Your task to perform on an android device: change the upload size in google photos Image 0: 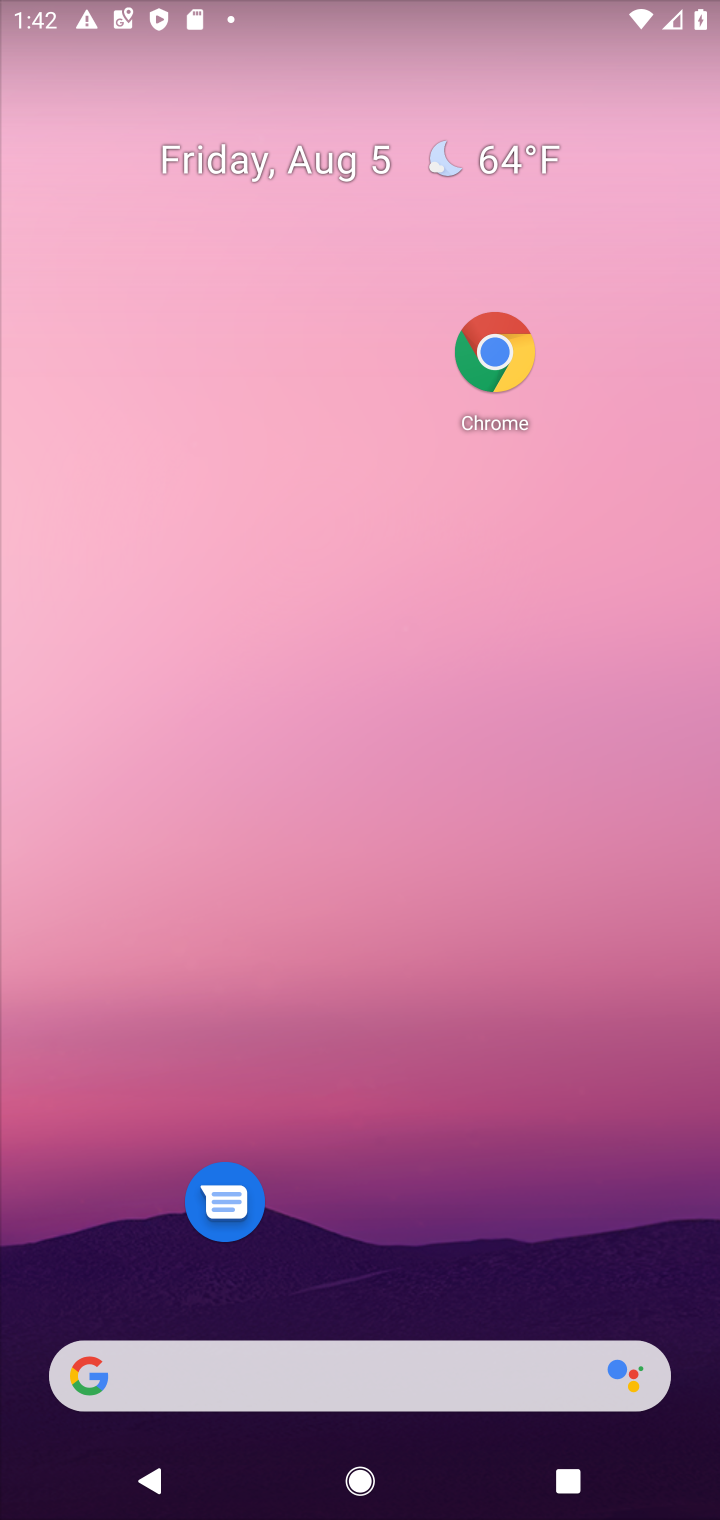
Step 0: drag from (462, 1136) to (404, 54)
Your task to perform on an android device: change the upload size in google photos Image 1: 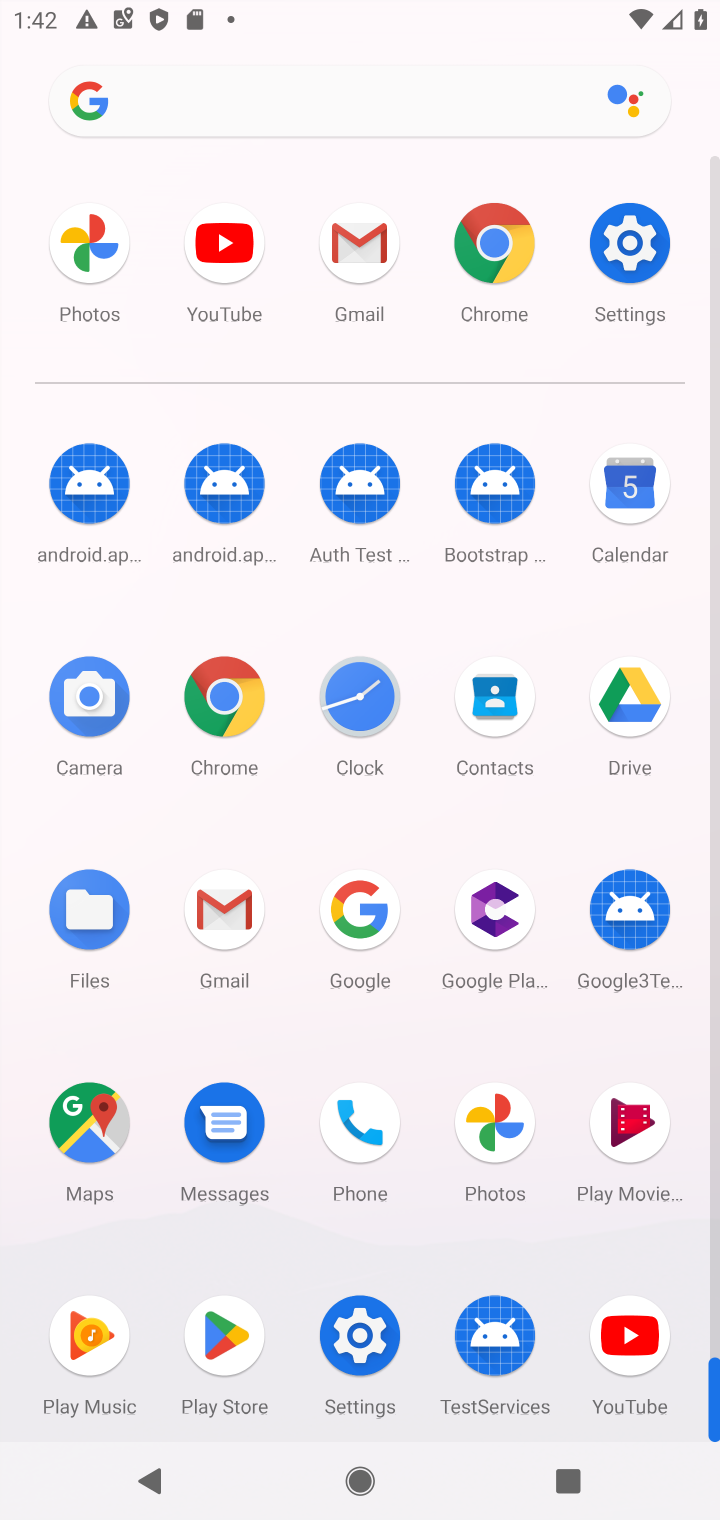
Step 1: click (493, 1121)
Your task to perform on an android device: change the upload size in google photos Image 2: 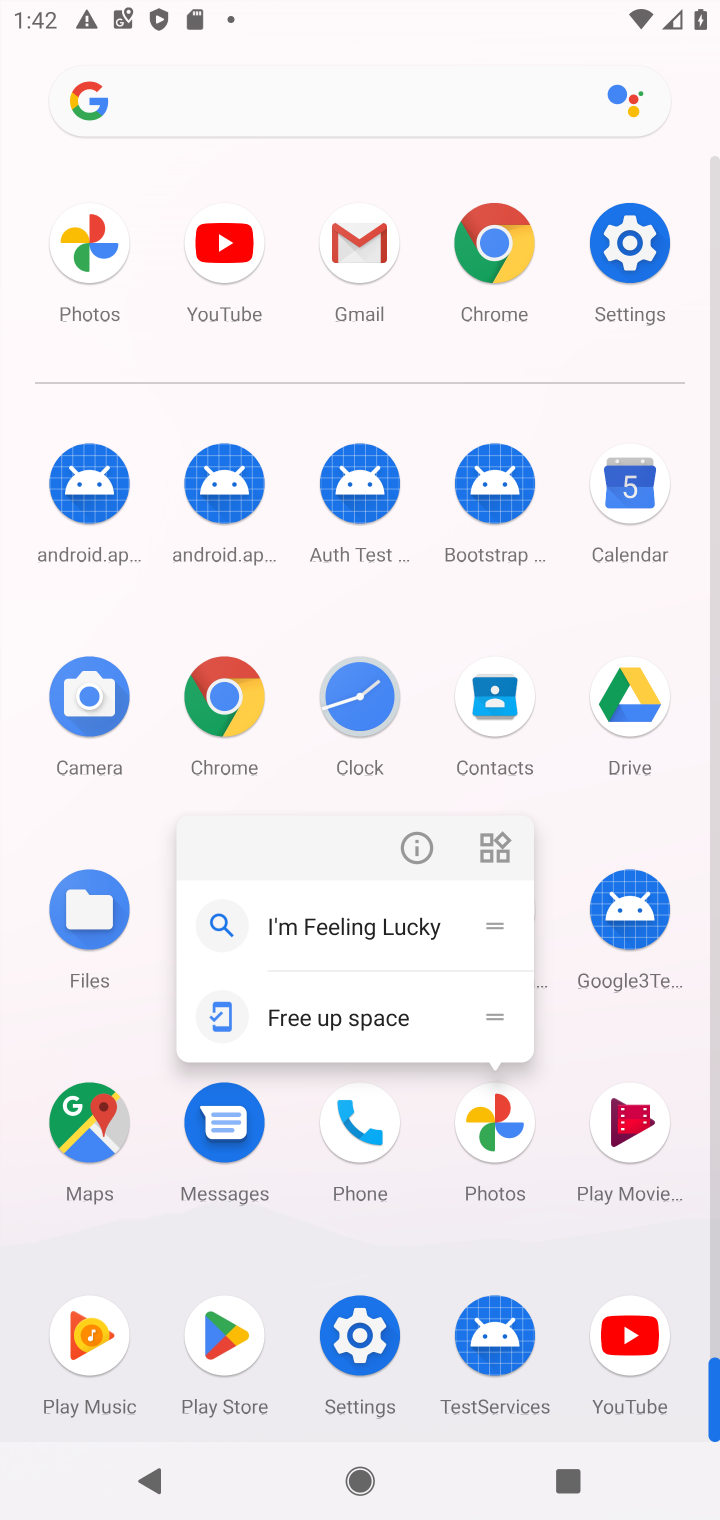
Step 2: click (493, 1122)
Your task to perform on an android device: change the upload size in google photos Image 3: 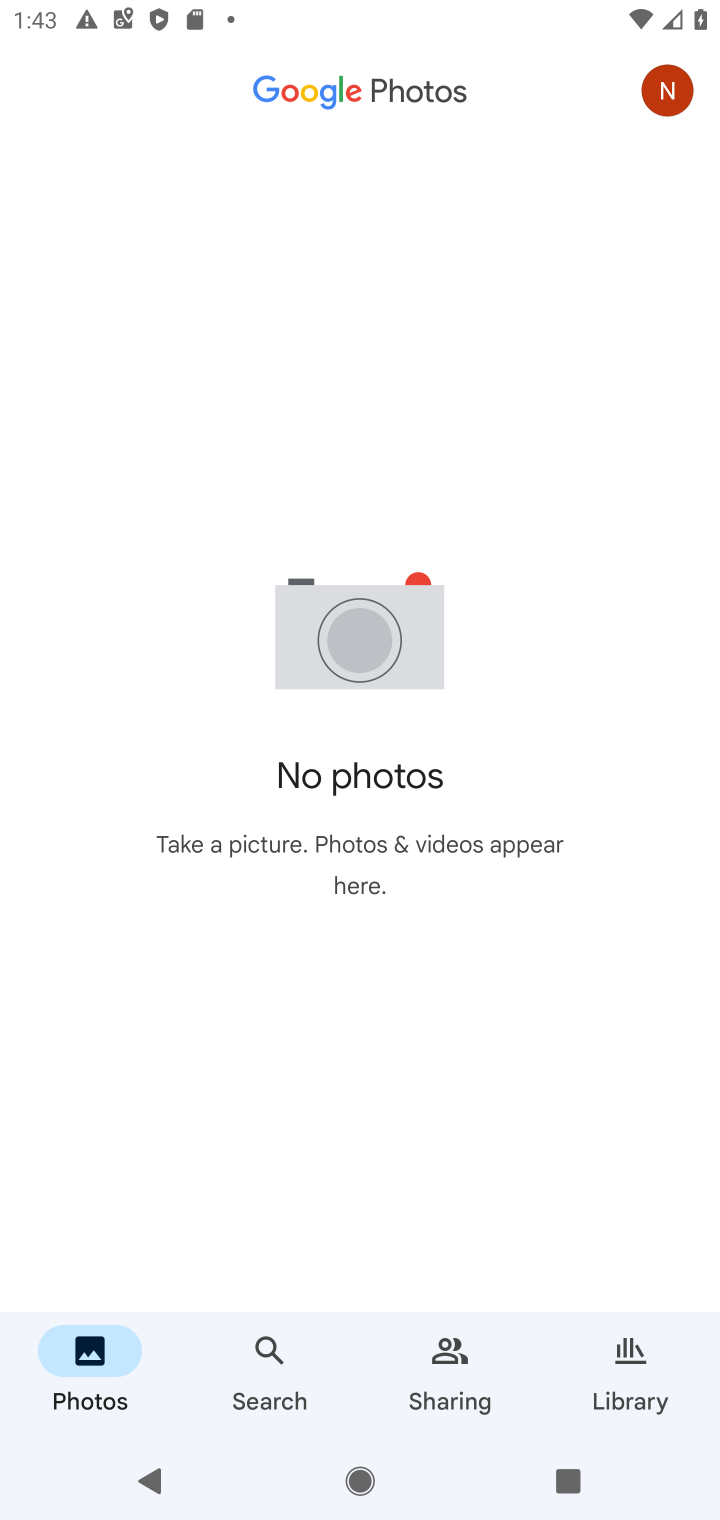
Step 3: click (675, 66)
Your task to perform on an android device: change the upload size in google photos Image 4: 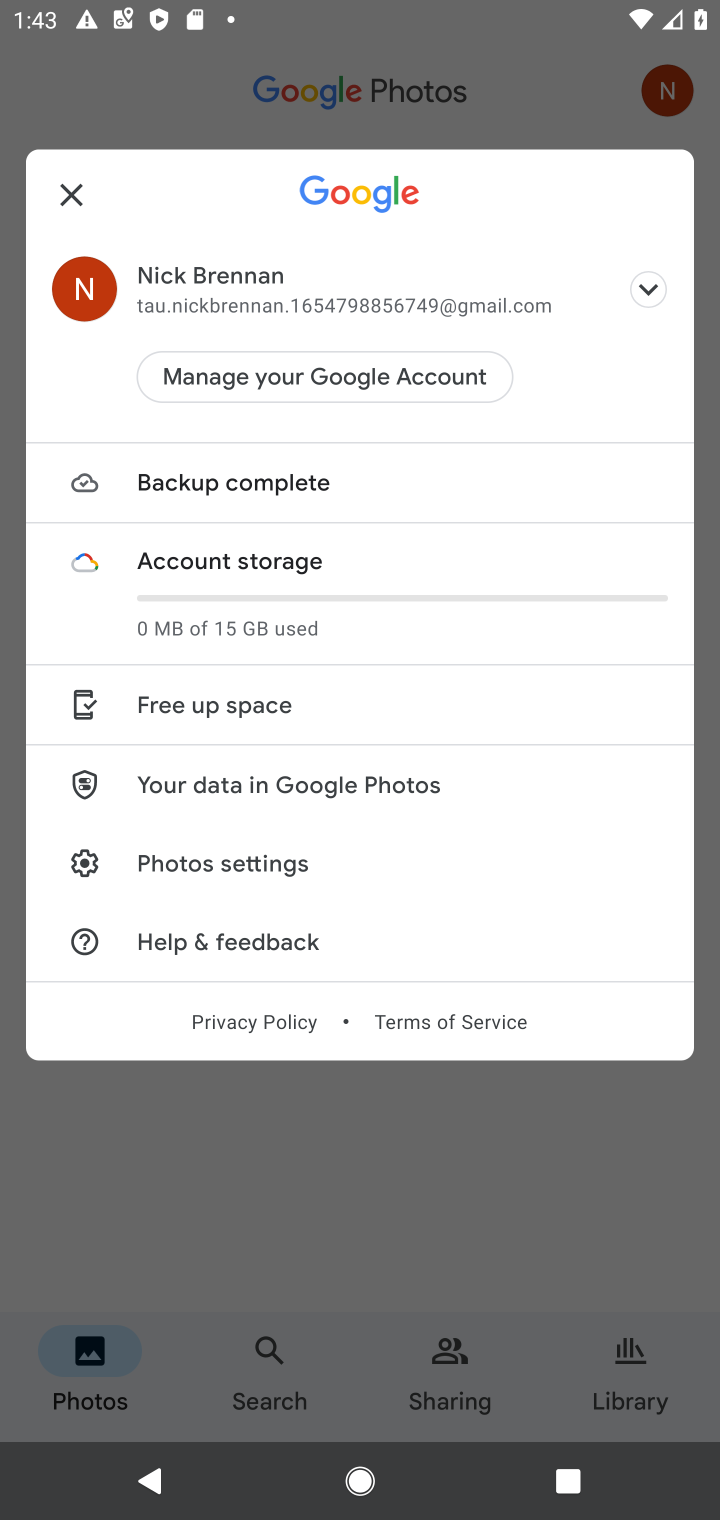
Step 4: click (248, 855)
Your task to perform on an android device: change the upload size in google photos Image 5: 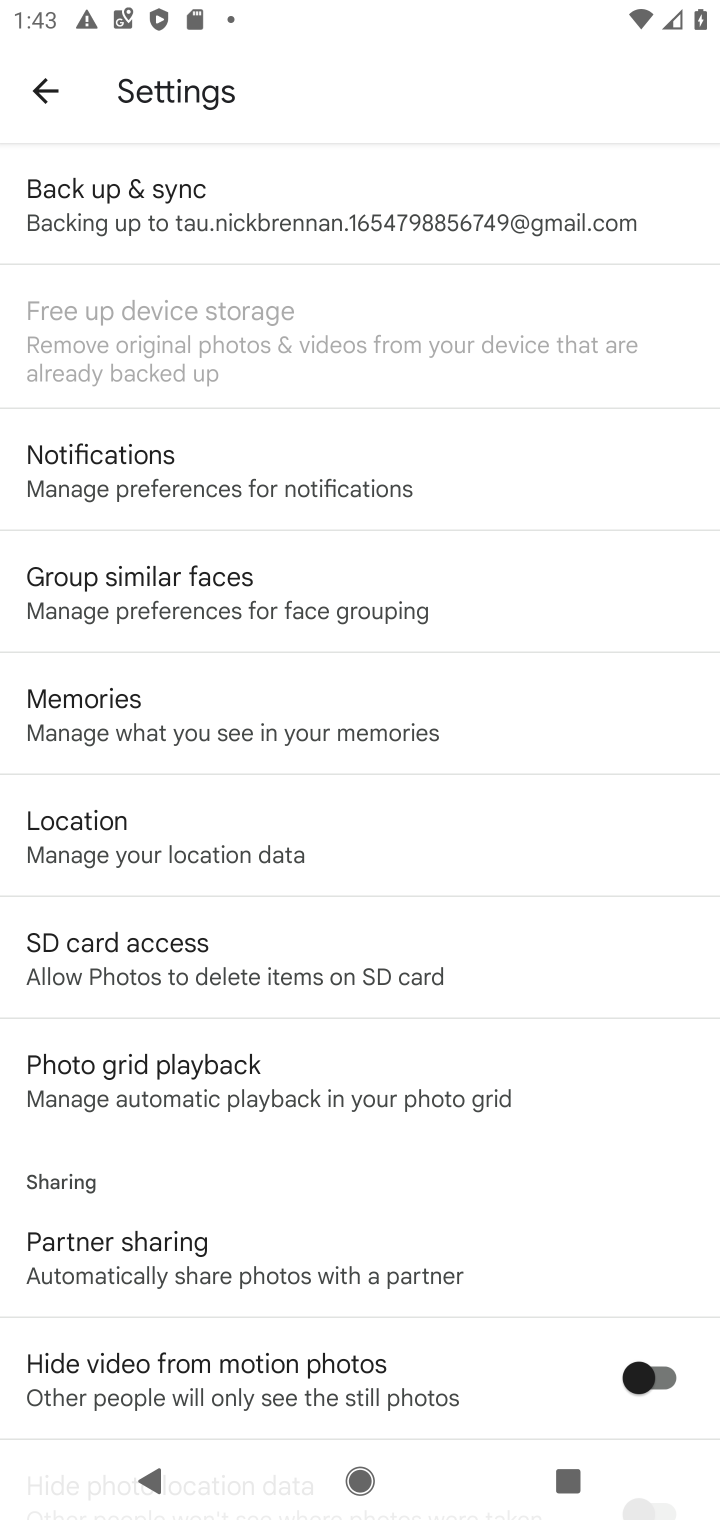
Step 5: click (242, 199)
Your task to perform on an android device: change the upload size in google photos Image 6: 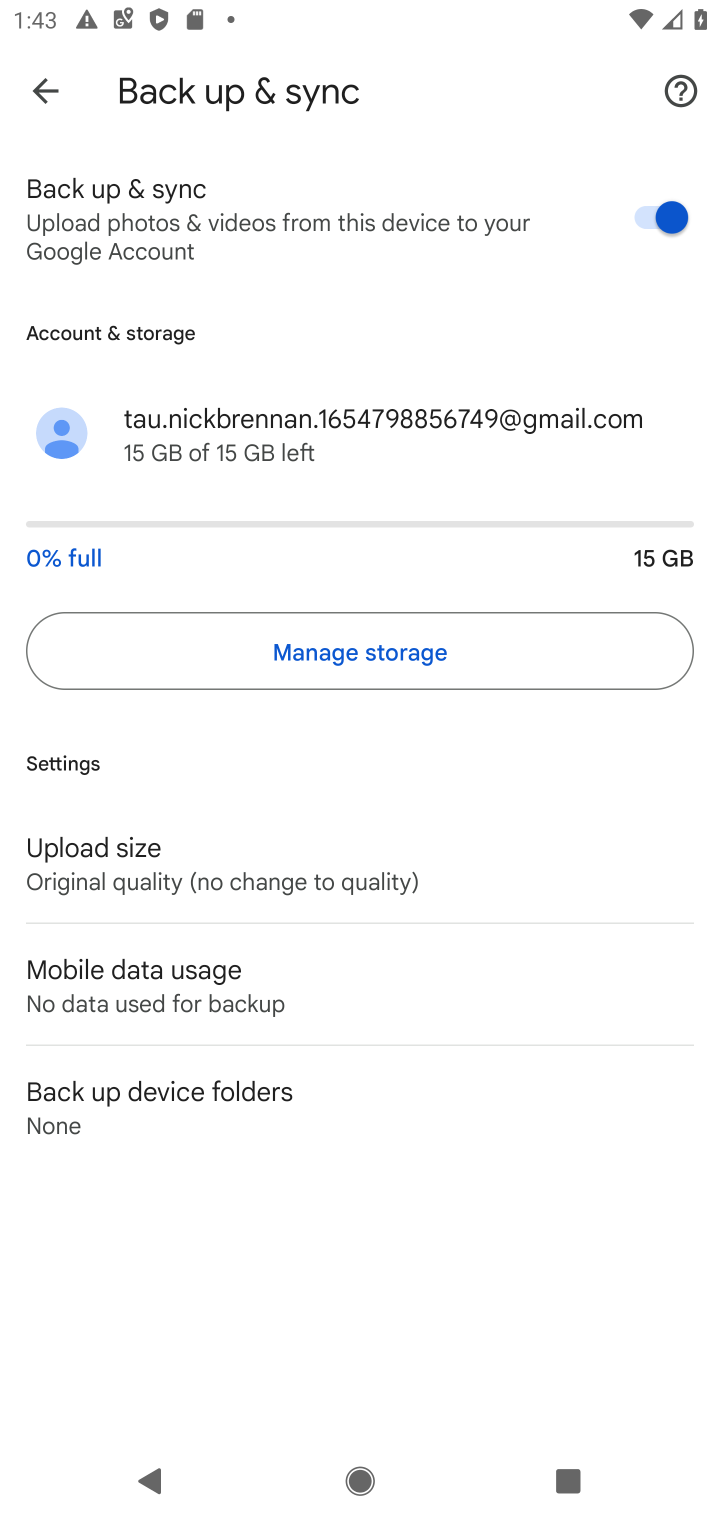
Step 6: click (248, 876)
Your task to perform on an android device: change the upload size in google photos Image 7: 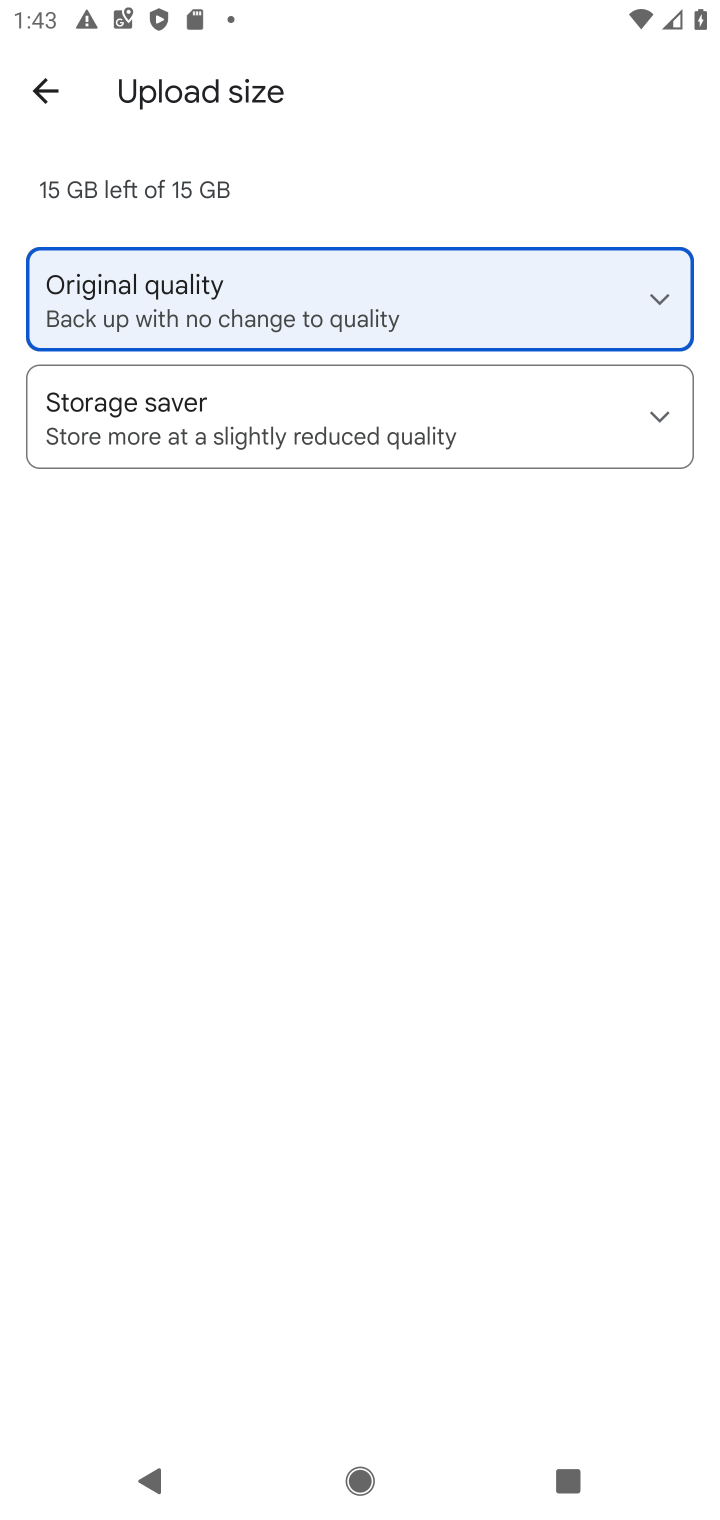
Step 7: click (285, 411)
Your task to perform on an android device: change the upload size in google photos Image 8: 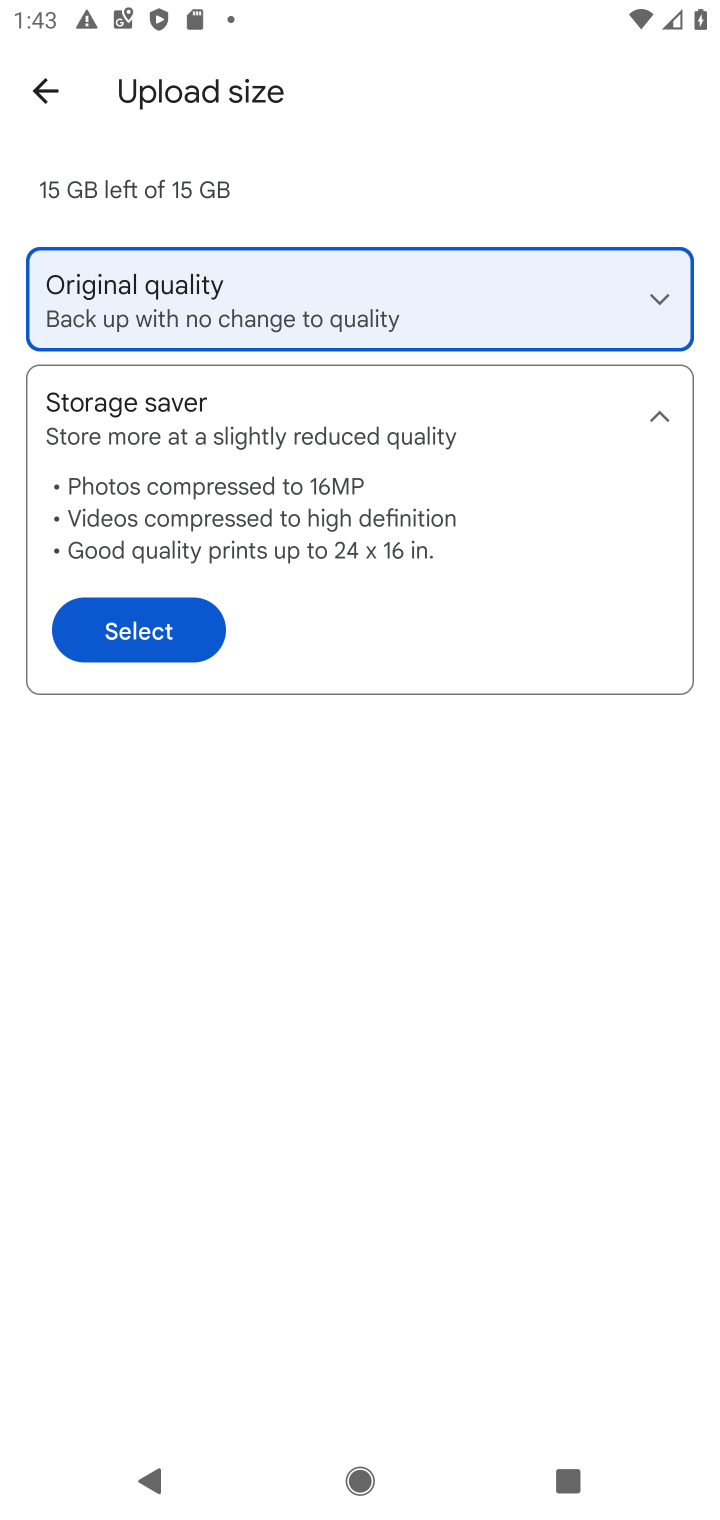
Step 8: click (132, 622)
Your task to perform on an android device: change the upload size in google photos Image 9: 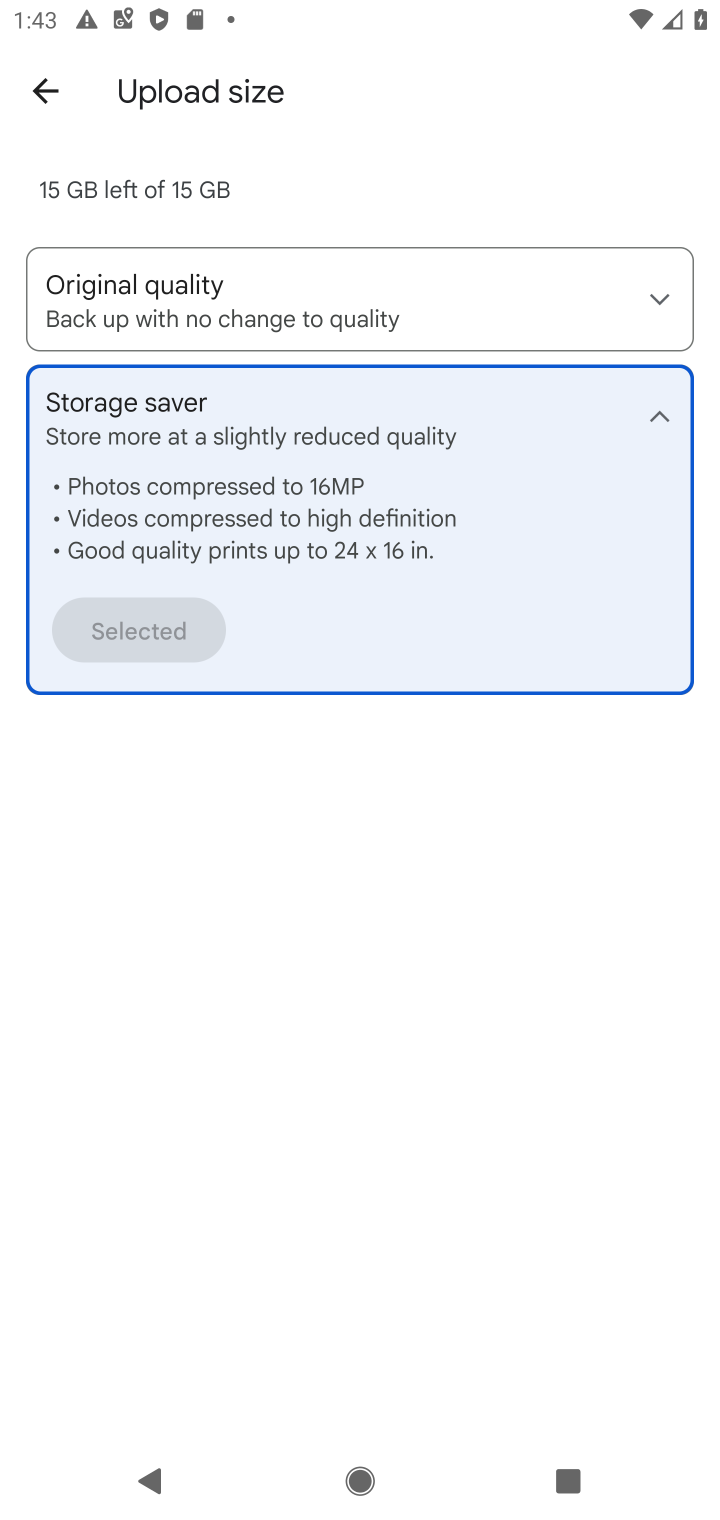
Step 9: task complete